Your task to perform on an android device: turn off airplane mode Image 0: 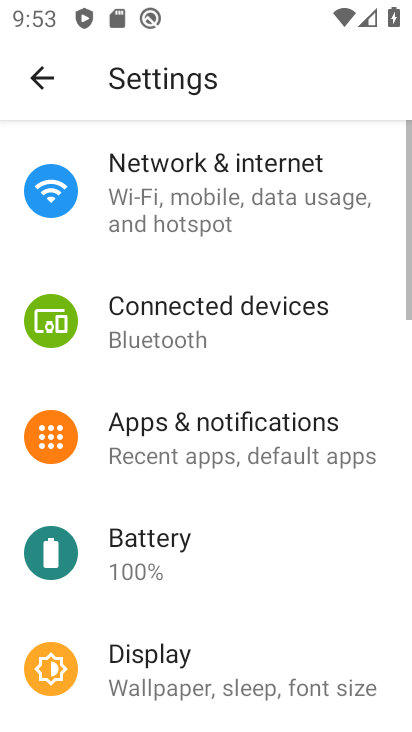
Step 0: click (256, 218)
Your task to perform on an android device: turn off airplane mode Image 1: 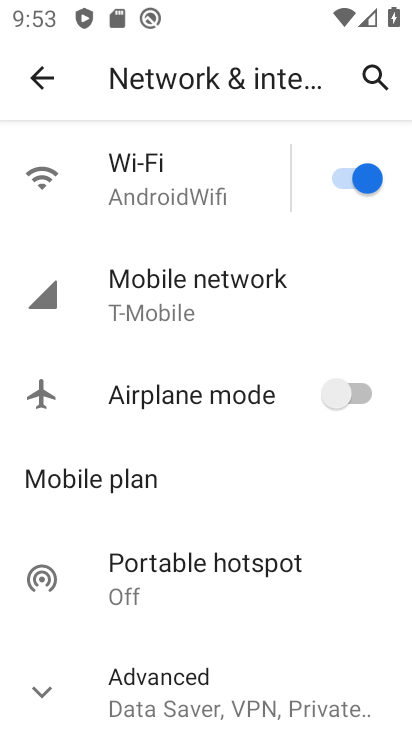
Step 1: task complete